Your task to perform on an android device: turn on notifications settings in the gmail app Image 0: 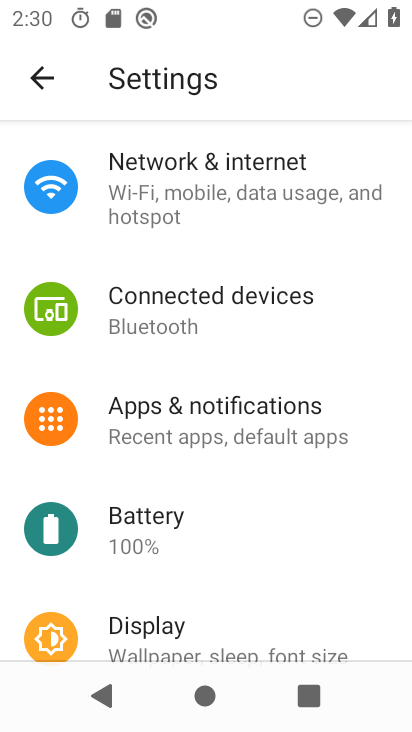
Step 0: press home button
Your task to perform on an android device: turn on notifications settings in the gmail app Image 1: 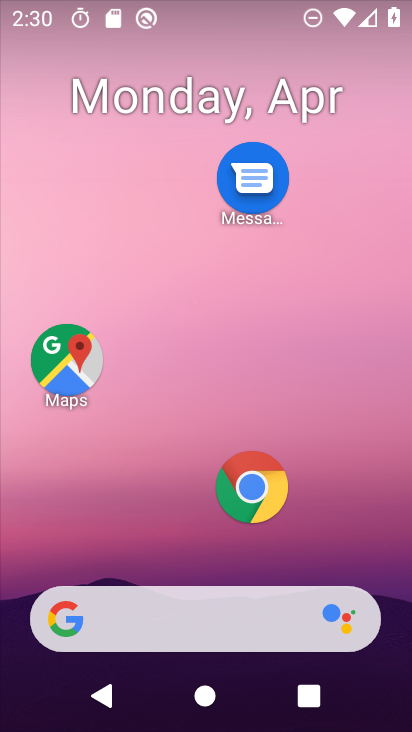
Step 1: drag from (318, 537) to (402, 560)
Your task to perform on an android device: turn on notifications settings in the gmail app Image 2: 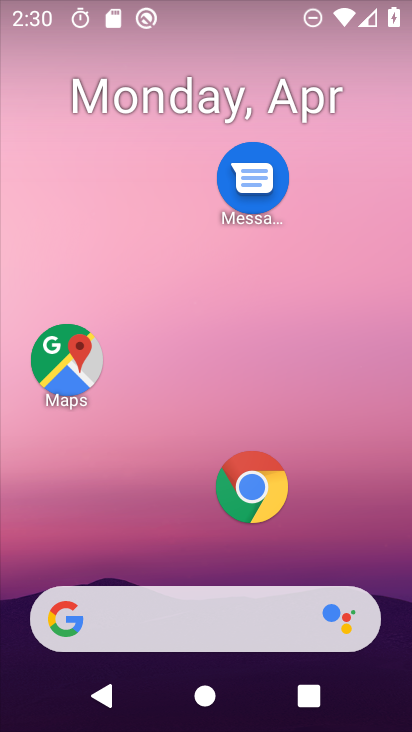
Step 2: click (347, 564)
Your task to perform on an android device: turn on notifications settings in the gmail app Image 3: 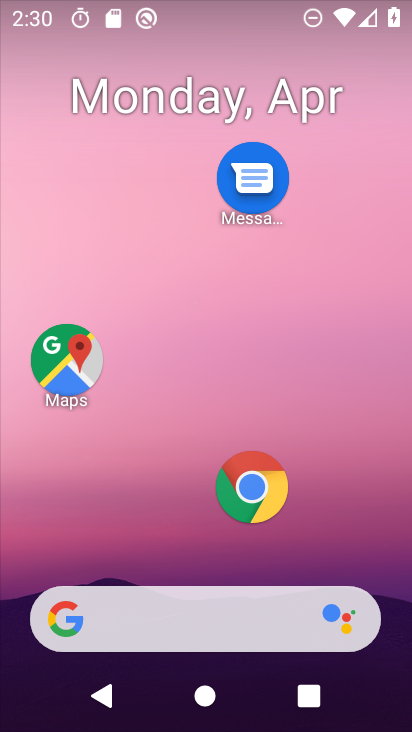
Step 3: drag from (358, 511) to (408, 233)
Your task to perform on an android device: turn on notifications settings in the gmail app Image 4: 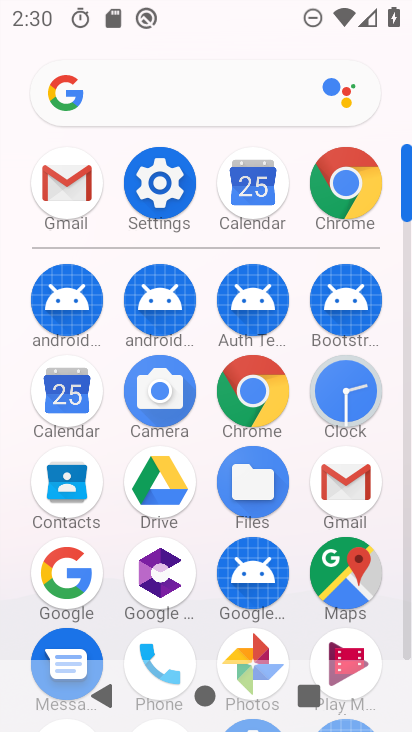
Step 4: click (352, 488)
Your task to perform on an android device: turn on notifications settings in the gmail app Image 5: 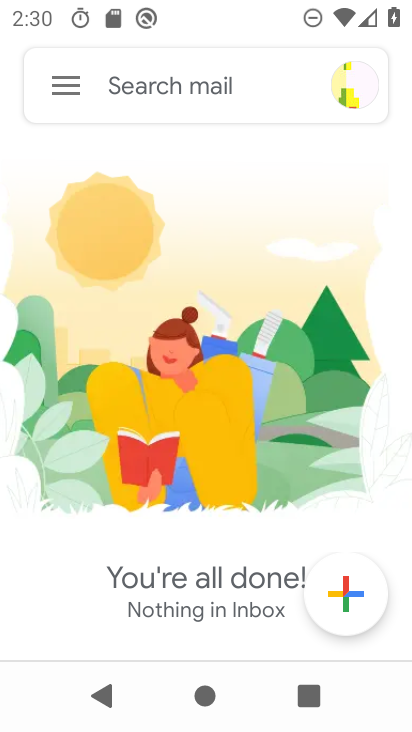
Step 5: click (65, 76)
Your task to perform on an android device: turn on notifications settings in the gmail app Image 6: 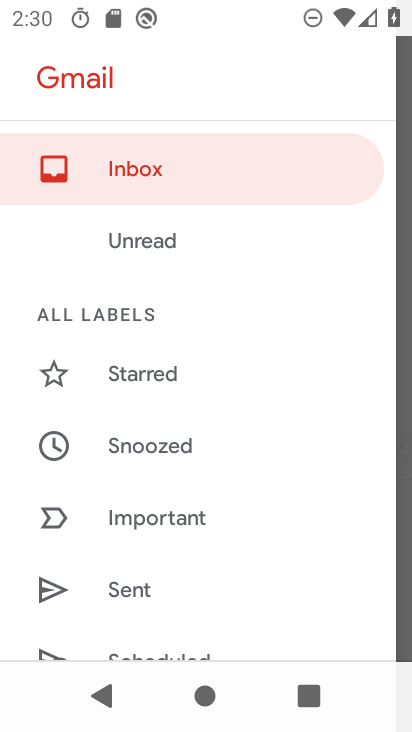
Step 6: drag from (187, 635) to (217, 64)
Your task to perform on an android device: turn on notifications settings in the gmail app Image 7: 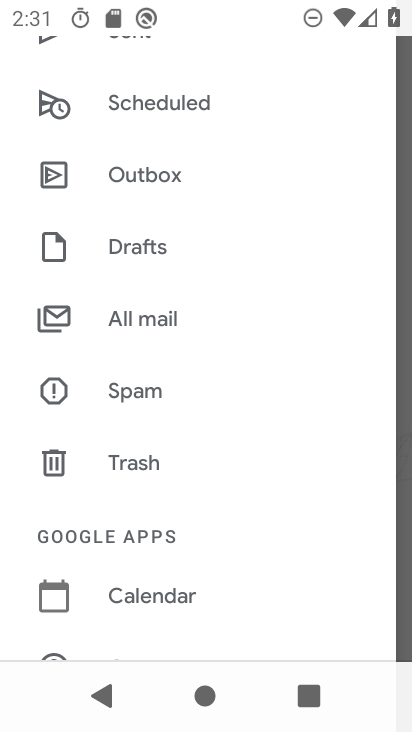
Step 7: drag from (185, 634) to (186, 213)
Your task to perform on an android device: turn on notifications settings in the gmail app Image 8: 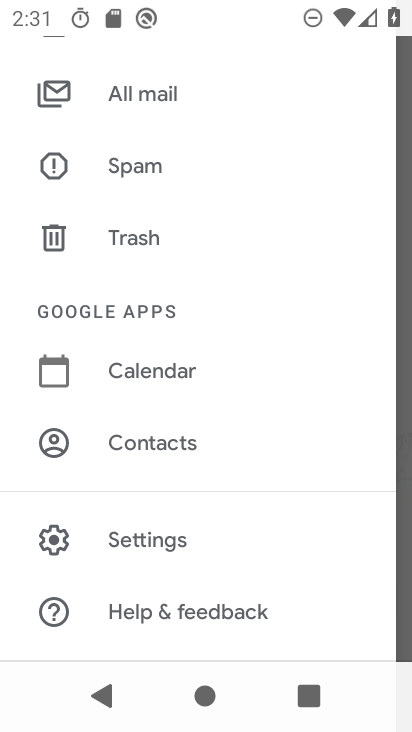
Step 8: click (180, 549)
Your task to perform on an android device: turn on notifications settings in the gmail app Image 9: 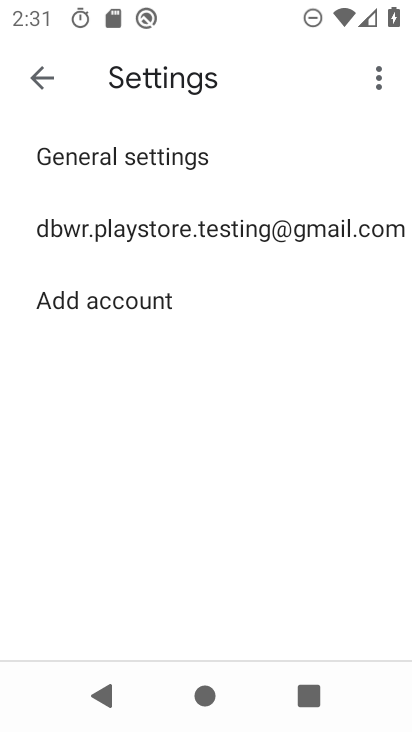
Step 9: click (189, 233)
Your task to perform on an android device: turn on notifications settings in the gmail app Image 10: 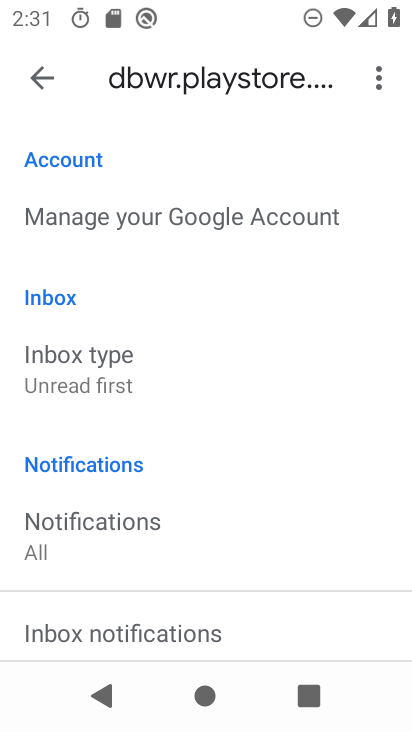
Step 10: drag from (96, 637) to (163, 138)
Your task to perform on an android device: turn on notifications settings in the gmail app Image 11: 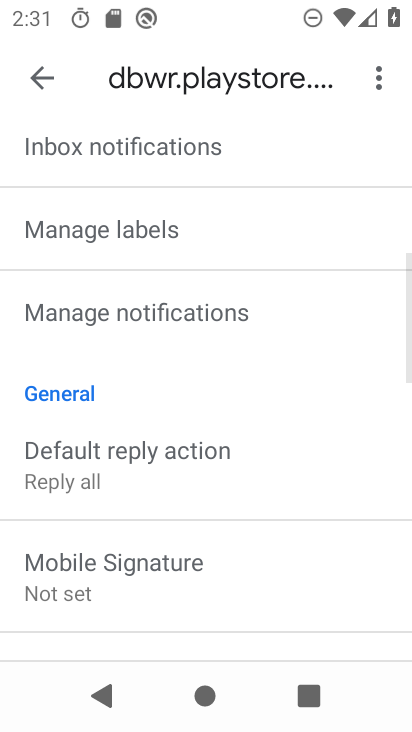
Step 11: click (138, 319)
Your task to perform on an android device: turn on notifications settings in the gmail app Image 12: 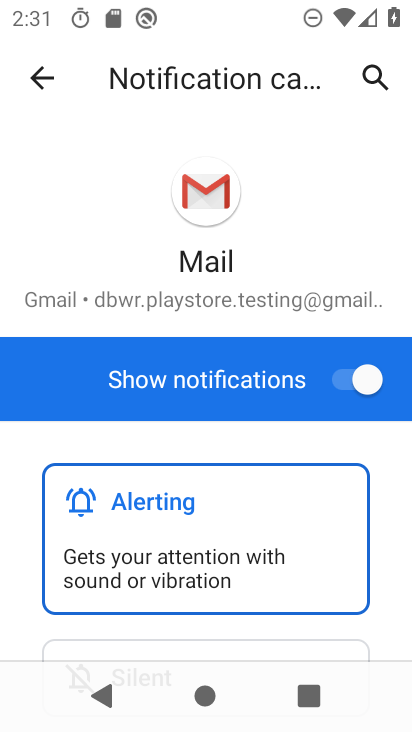
Step 12: task complete